Your task to perform on an android device: delete the emails in spam in the gmail app Image 0: 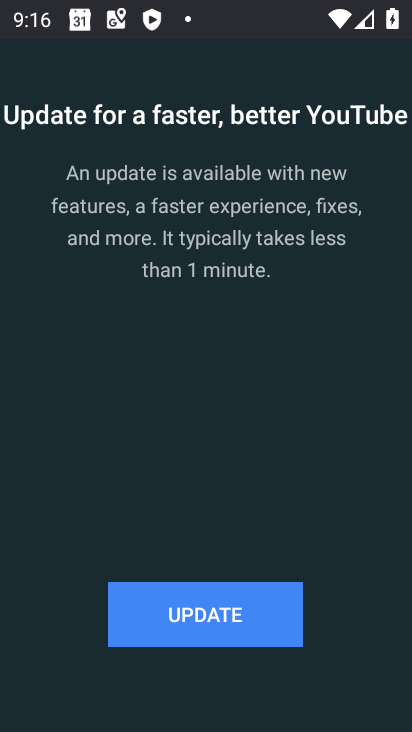
Step 0: press home button
Your task to perform on an android device: delete the emails in spam in the gmail app Image 1: 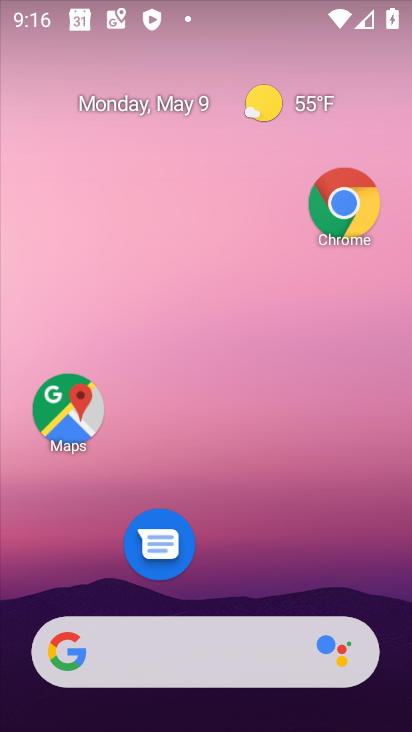
Step 1: drag from (249, 576) to (249, 124)
Your task to perform on an android device: delete the emails in spam in the gmail app Image 2: 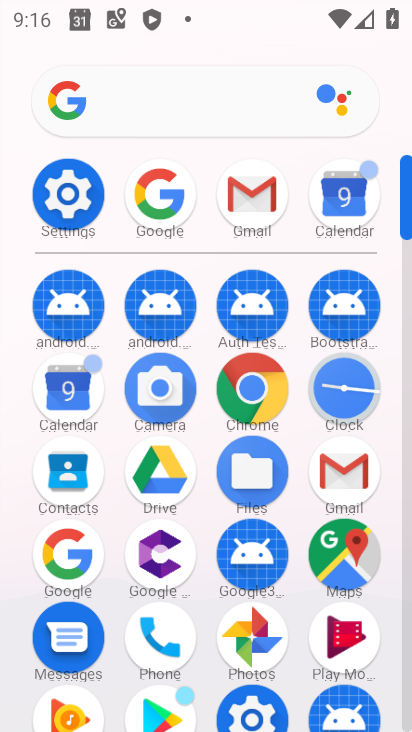
Step 2: click (226, 220)
Your task to perform on an android device: delete the emails in spam in the gmail app Image 3: 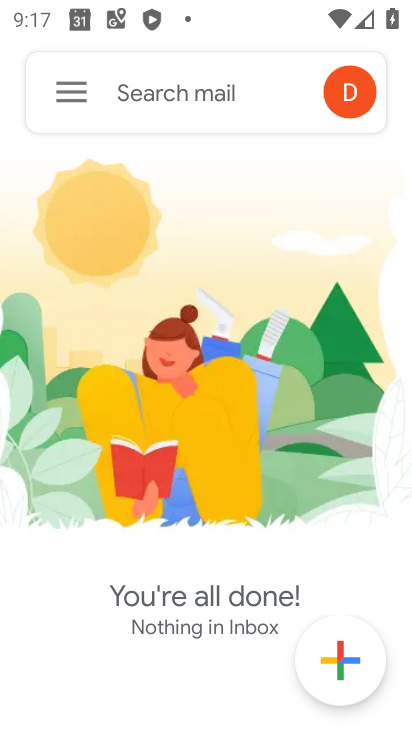
Step 3: click (65, 75)
Your task to perform on an android device: delete the emails in spam in the gmail app Image 4: 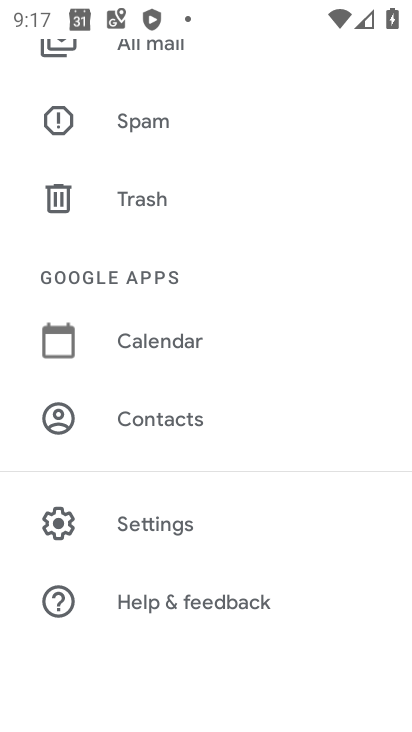
Step 4: click (202, 128)
Your task to perform on an android device: delete the emails in spam in the gmail app Image 5: 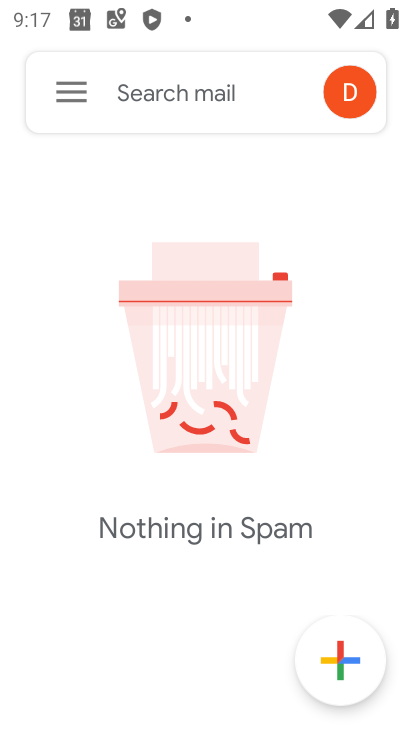
Step 5: task complete